Your task to perform on an android device: Toggle the flashlight Image 0: 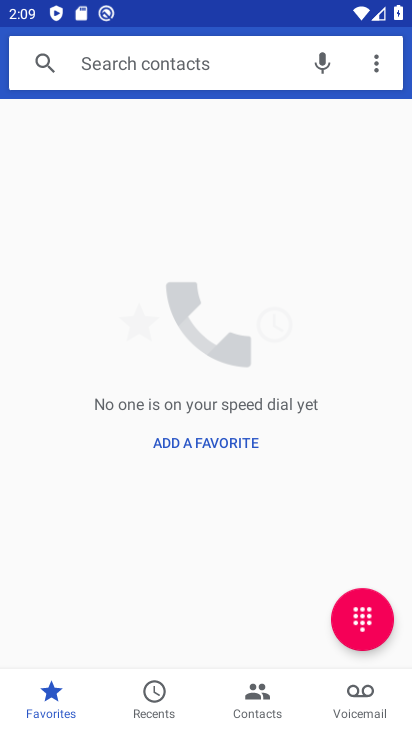
Step 0: drag from (215, 0) to (273, 450)
Your task to perform on an android device: Toggle the flashlight Image 1: 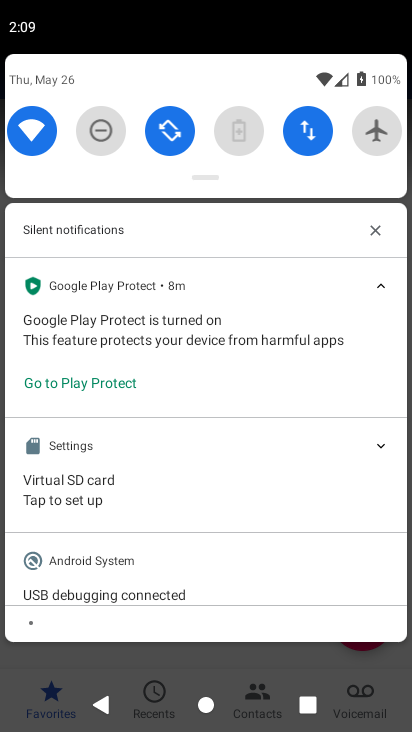
Step 1: task complete